Your task to perform on an android device: View the shopping cart on bestbuy. Search for razer naga on bestbuy, select the first entry, and add it to the cart. Image 0: 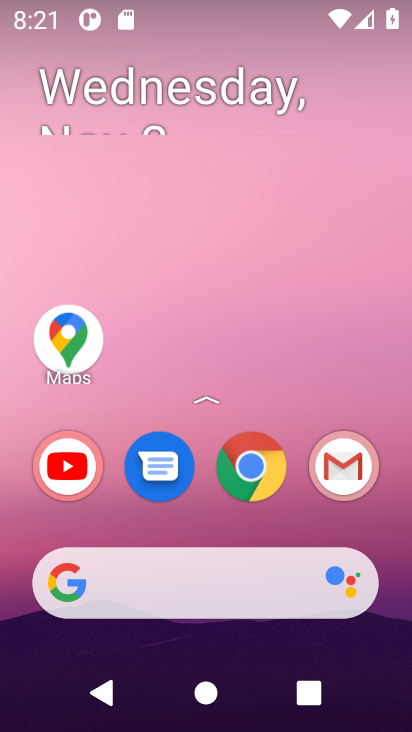
Step 0: click (174, 590)
Your task to perform on an android device: View the shopping cart on bestbuy. Search for razer naga on bestbuy, select the first entry, and add it to the cart. Image 1: 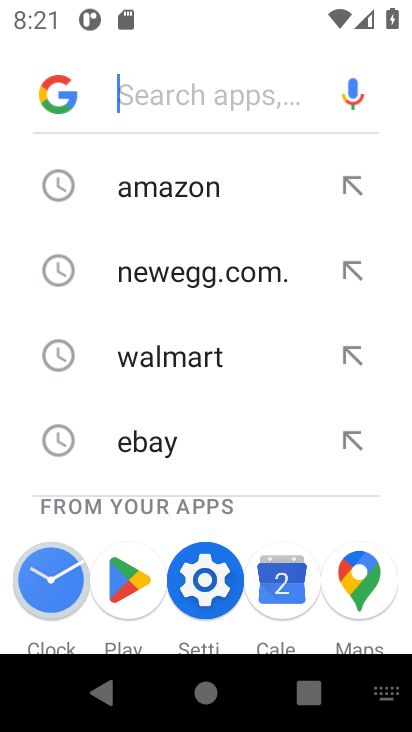
Step 1: type "bestbuy"
Your task to perform on an android device: View the shopping cart on bestbuy. Search for razer naga on bestbuy, select the first entry, and add it to the cart. Image 2: 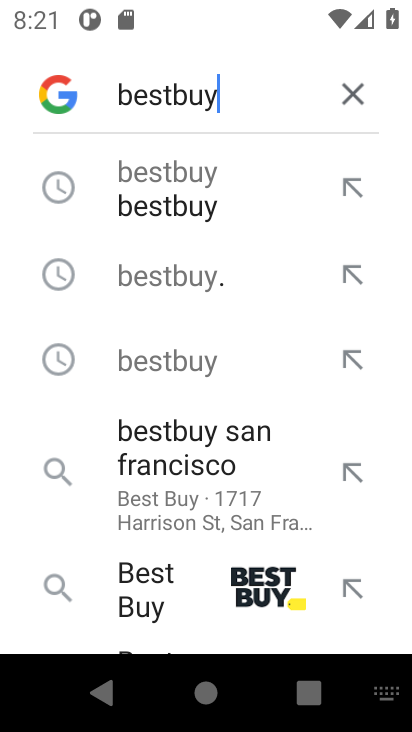
Step 2: type ""
Your task to perform on an android device: View the shopping cart on bestbuy. Search for razer naga on bestbuy, select the first entry, and add it to the cart. Image 3: 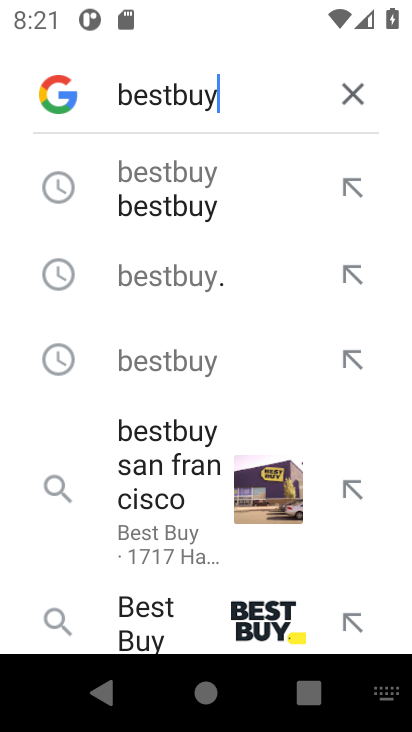
Step 3: click (213, 198)
Your task to perform on an android device: View the shopping cart on bestbuy. Search for razer naga on bestbuy, select the first entry, and add it to the cart. Image 4: 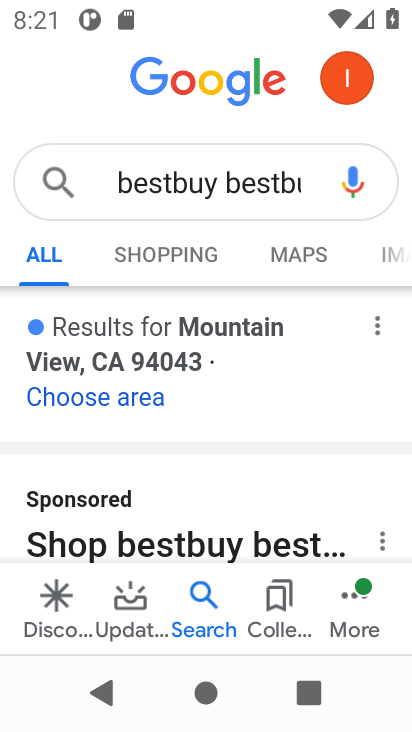
Step 4: drag from (182, 495) to (163, 268)
Your task to perform on an android device: View the shopping cart on bestbuy. Search for razer naga on bestbuy, select the first entry, and add it to the cart. Image 5: 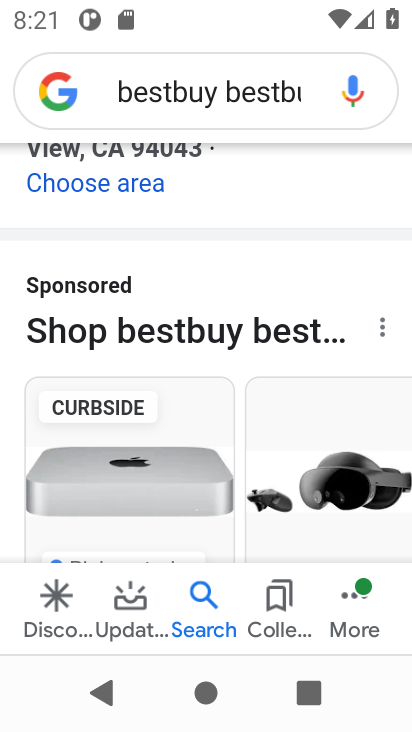
Step 5: drag from (194, 453) to (162, 194)
Your task to perform on an android device: View the shopping cart on bestbuy. Search for razer naga on bestbuy, select the first entry, and add it to the cart. Image 6: 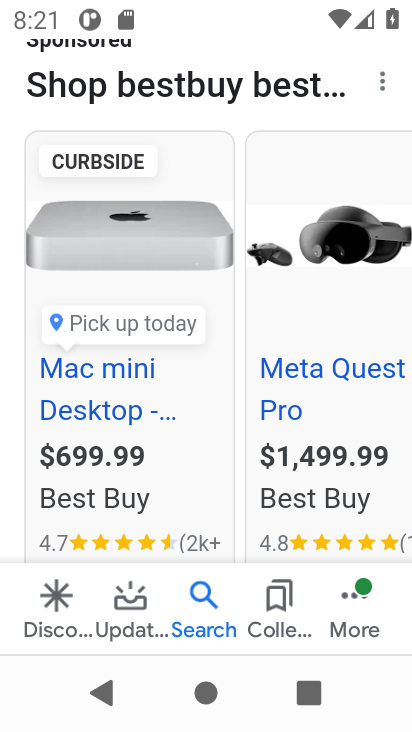
Step 6: drag from (193, 419) to (192, 134)
Your task to perform on an android device: View the shopping cart on bestbuy. Search for razer naga on bestbuy, select the first entry, and add it to the cart. Image 7: 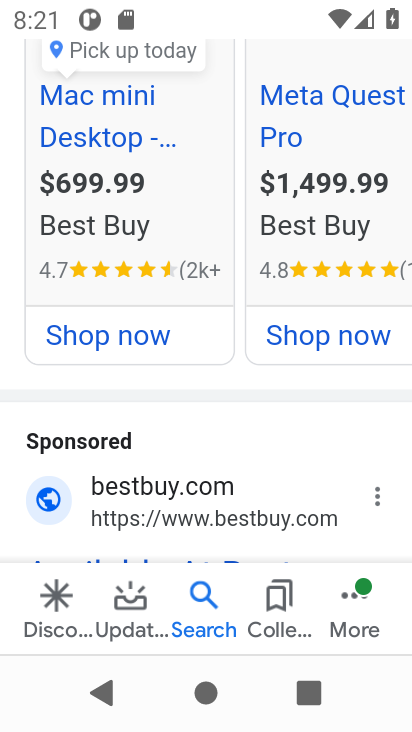
Step 7: click (222, 479)
Your task to perform on an android device: View the shopping cart on bestbuy. Search for razer naga on bestbuy, select the first entry, and add it to the cart. Image 8: 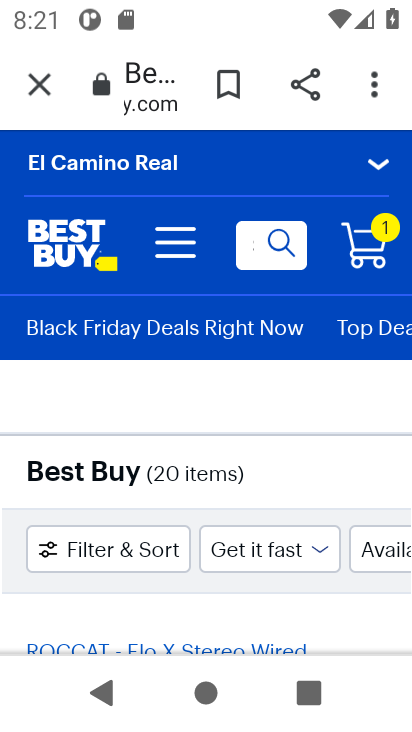
Step 8: click (255, 239)
Your task to perform on an android device: View the shopping cart on bestbuy. Search for razer naga on bestbuy, select the first entry, and add it to the cart. Image 9: 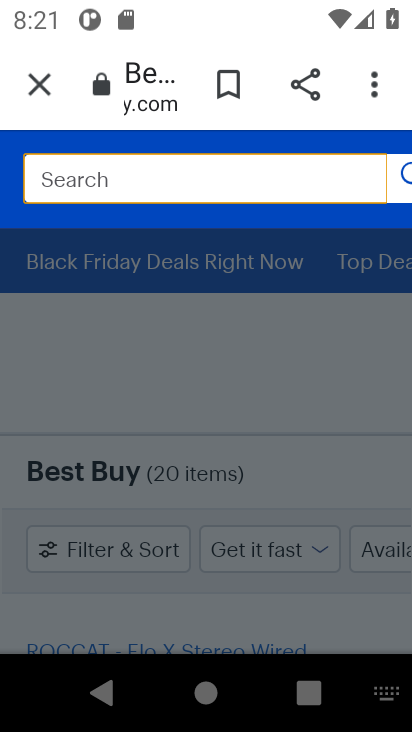
Step 9: type "razer naga"
Your task to perform on an android device: View the shopping cart on bestbuy. Search for razer naga on bestbuy, select the first entry, and add it to the cart. Image 10: 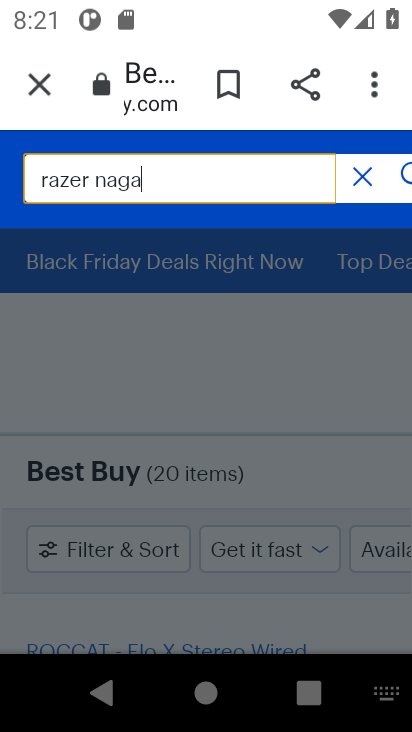
Step 10: type ""
Your task to perform on an android device: View the shopping cart on bestbuy. Search for razer naga on bestbuy, select the first entry, and add it to the cart. Image 11: 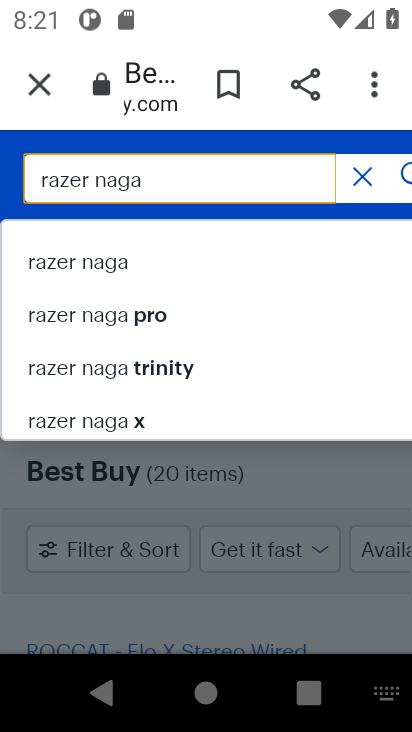
Step 11: click (105, 260)
Your task to perform on an android device: View the shopping cart on bestbuy. Search for razer naga on bestbuy, select the first entry, and add it to the cart. Image 12: 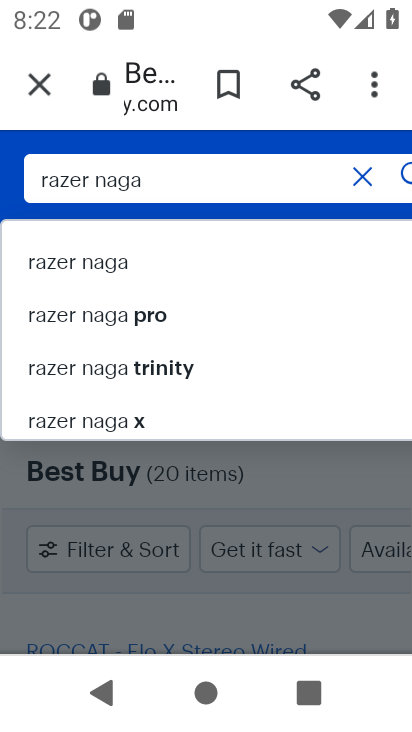
Step 12: click (144, 274)
Your task to perform on an android device: View the shopping cart on bestbuy. Search for razer naga on bestbuy, select the first entry, and add it to the cart. Image 13: 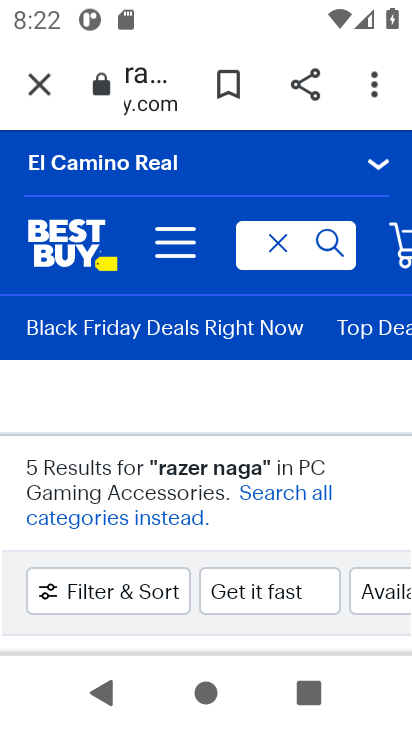
Step 13: drag from (283, 540) to (287, 264)
Your task to perform on an android device: View the shopping cart on bestbuy. Search for razer naga on bestbuy, select the first entry, and add it to the cart. Image 14: 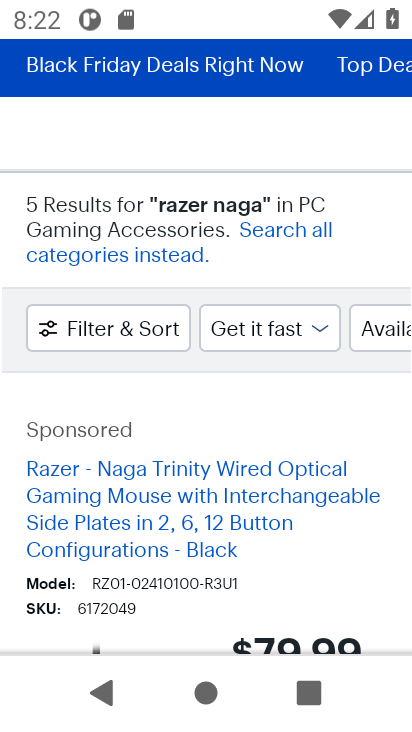
Step 14: drag from (277, 505) to (291, 136)
Your task to perform on an android device: View the shopping cart on bestbuy. Search for razer naga on bestbuy, select the first entry, and add it to the cart. Image 15: 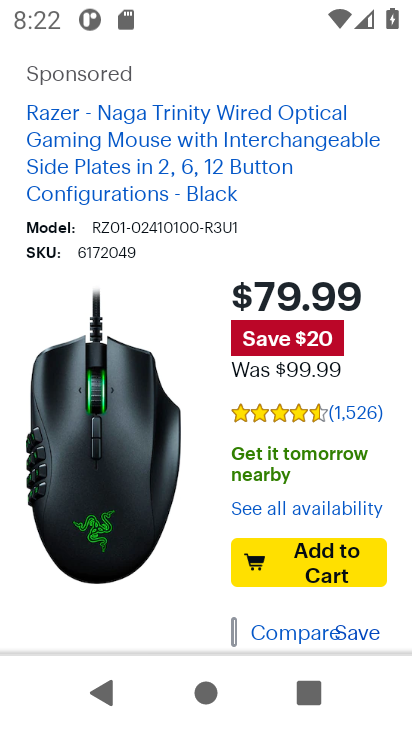
Step 15: drag from (361, 480) to (375, 302)
Your task to perform on an android device: View the shopping cart on bestbuy. Search for razer naga on bestbuy, select the first entry, and add it to the cart. Image 16: 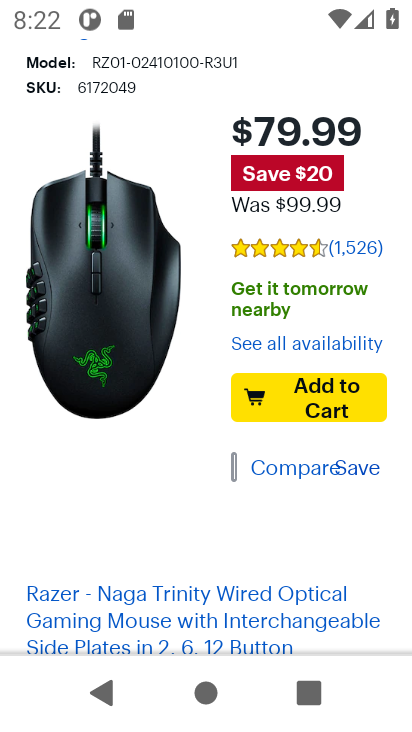
Step 16: drag from (309, 519) to (344, 267)
Your task to perform on an android device: View the shopping cart on bestbuy. Search for razer naga on bestbuy, select the first entry, and add it to the cart. Image 17: 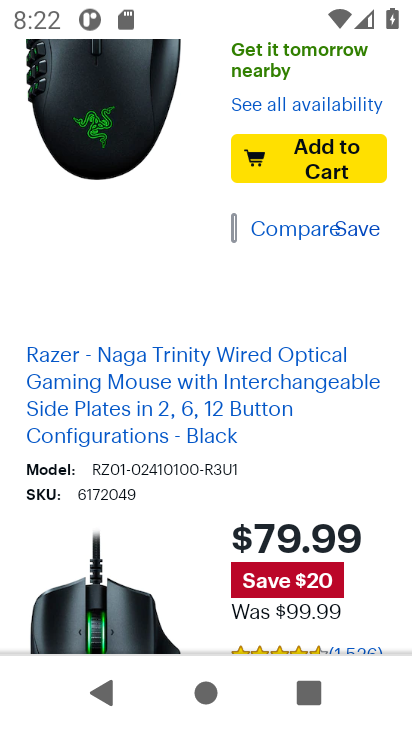
Step 17: drag from (305, 592) to (332, 358)
Your task to perform on an android device: View the shopping cart on bestbuy. Search for razer naga on bestbuy, select the first entry, and add it to the cart. Image 18: 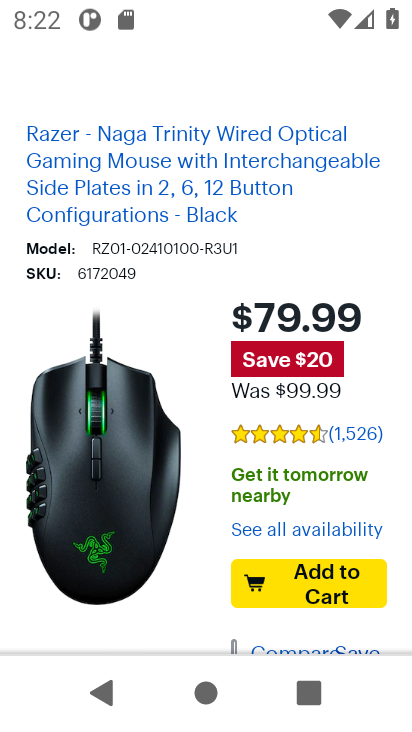
Step 18: click (303, 593)
Your task to perform on an android device: View the shopping cart on bestbuy. Search for razer naga on bestbuy, select the first entry, and add it to the cart. Image 19: 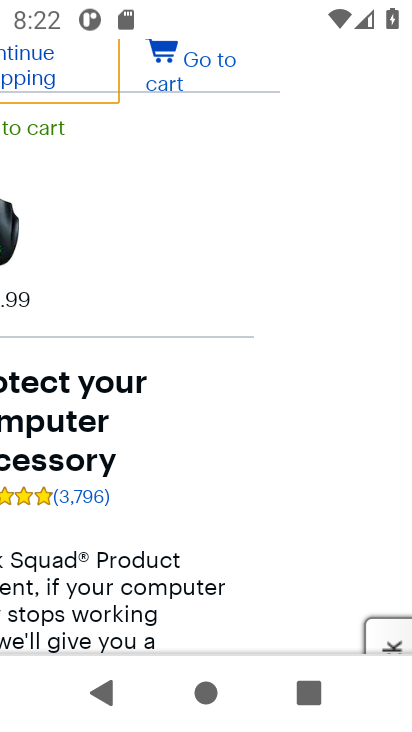
Step 19: task complete